Your task to perform on an android device: turn on data saver in the chrome app Image 0: 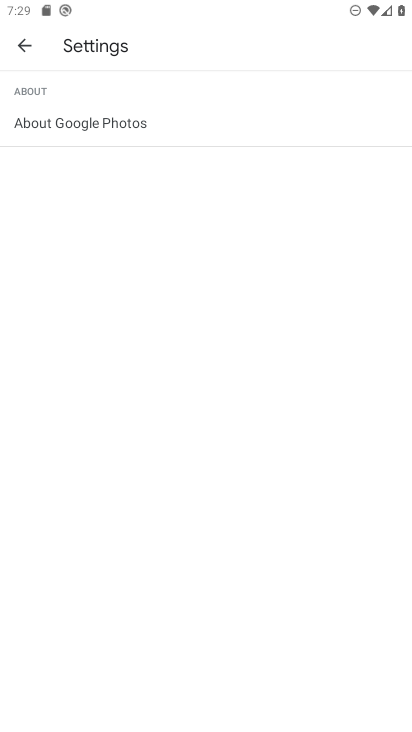
Step 0: press home button
Your task to perform on an android device: turn on data saver in the chrome app Image 1: 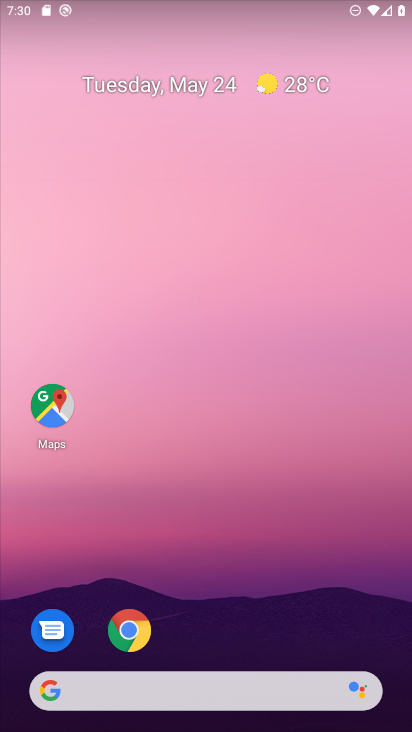
Step 1: drag from (240, 698) to (153, 185)
Your task to perform on an android device: turn on data saver in the chrome app Image 2: 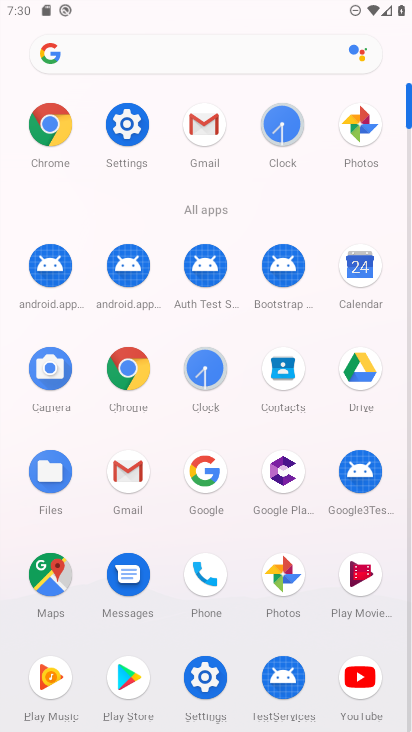
Step 2: click (58, 135)
Your task to perform on an android device: turn on data saver in the chrome app Image 3: 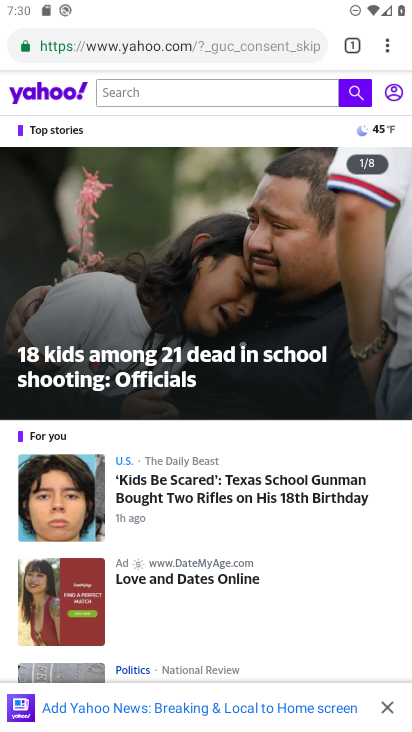
Step 3: click (383, 46)
Your task to perform on an android device: turn on data saver in the chrome app Image 4: 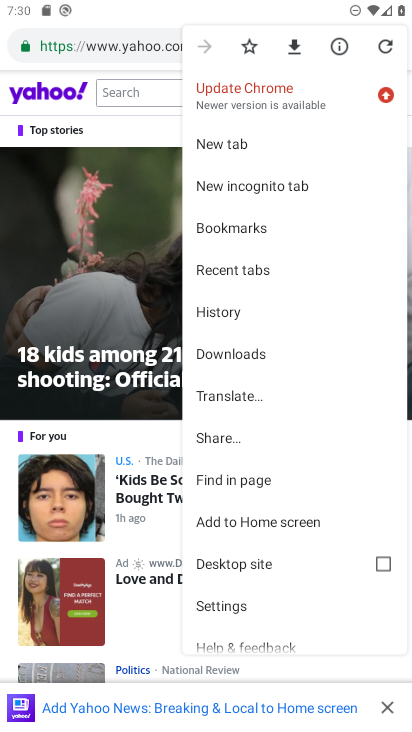
Step 4: click (241, 603)
Your task to perform on an android device: turn on data saver in the chrome app Image 5: 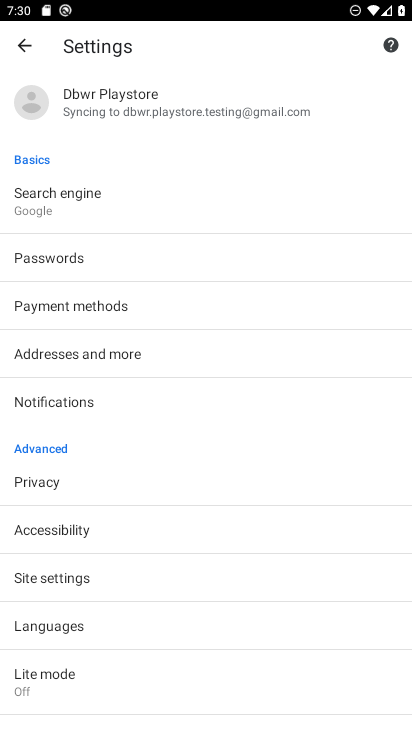
Step 5: click (63, 672)
Your task to perform on an android device: turn on data saver in the chrome app Image 6: 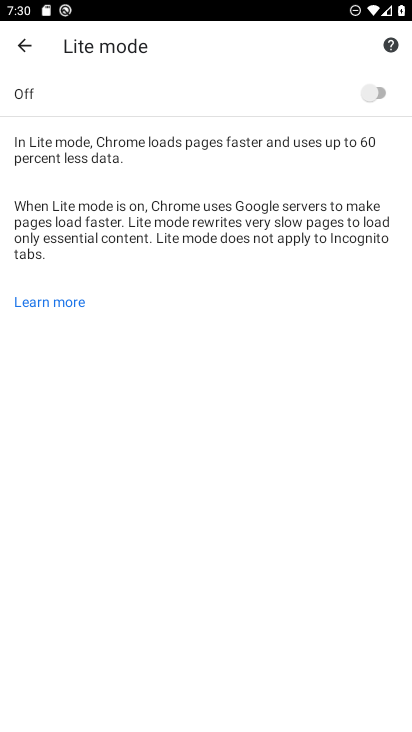
Step 6: click (374, 97)
Your task to perform on an android device: turn on data saver in the chrome app Image 7: 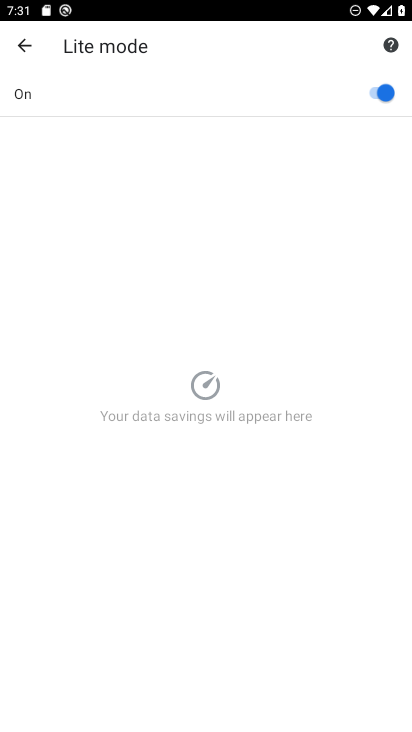
Step 7: task complete